Your task to perform on an android device: set the stopwatch Image 0: 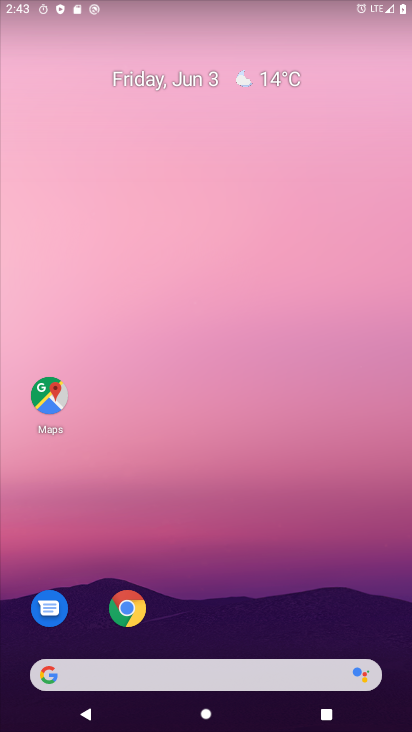
Step 0: drag from (220, 670) to (251, 44)
Your task to perform on an android device: set the stopwatch Image 1: 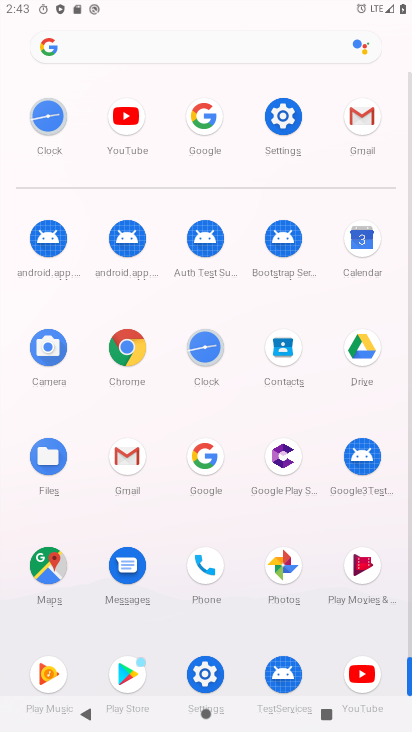
Step 1: click (204, 348)
Your task to perform on an android device: set the stopwatch Image 2: 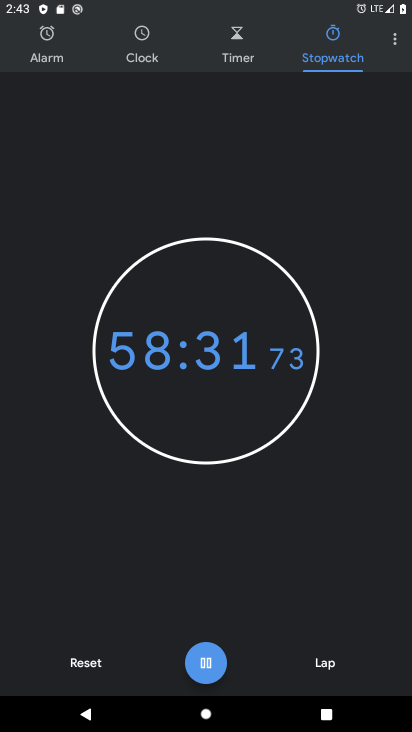
Step 2: click (92, 667)
Your task to perform on an android device: set the stopwatch Image 3: 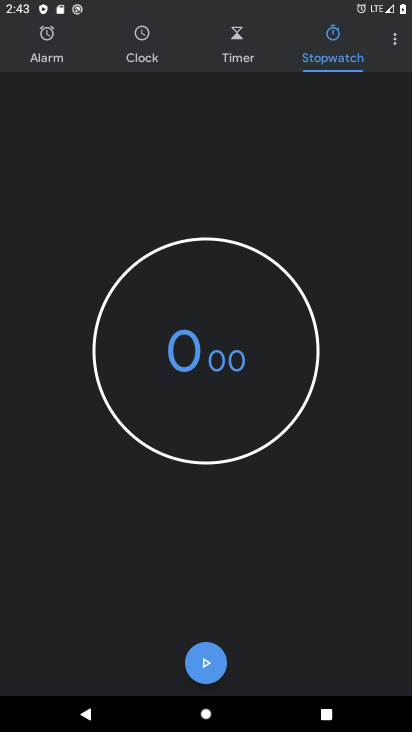
Step 3: task complete